Your task to perform on an android device: Open eBay Image 0: 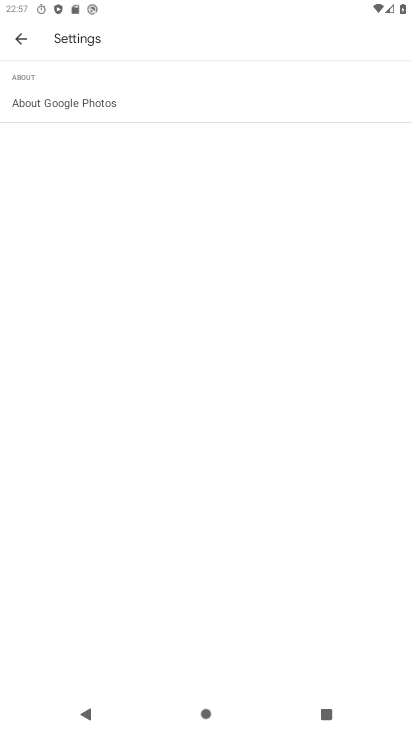
Step 0: press home button
Your task to perform on an android device: Open eBay Image 1: 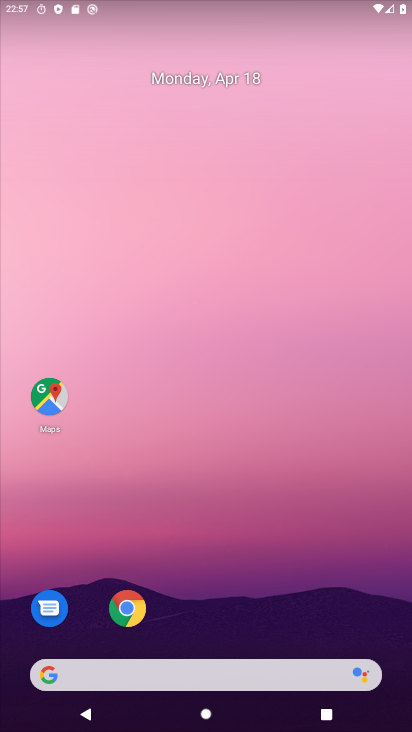
Step 1: drag from (250, 577) to (237, 109)
Your task to perform on an android device: Open eBay Image 2: 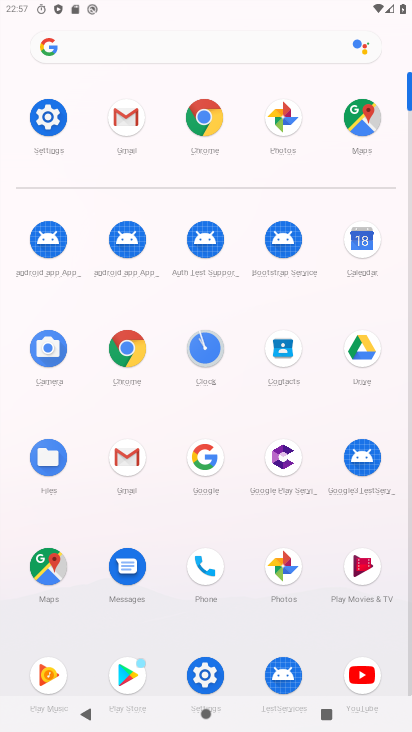
Step 2: click (206, 451)
Your task to perform on an android device: Open eBay Image 3: 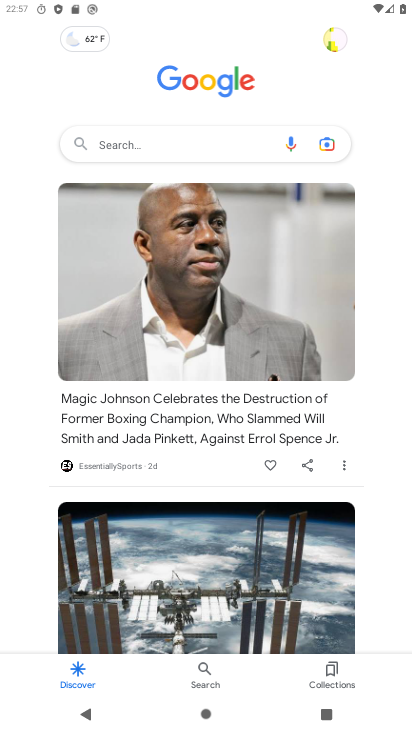
Step 3: click (151, 143)
Your task to perform on an android device: Open eBay Image 4: 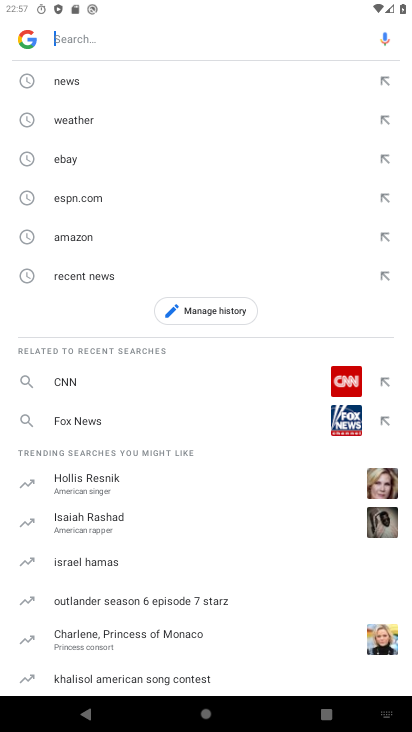
Step 4: click (80, 161)
Your task to perform on an android device: Open eBay Image 5: 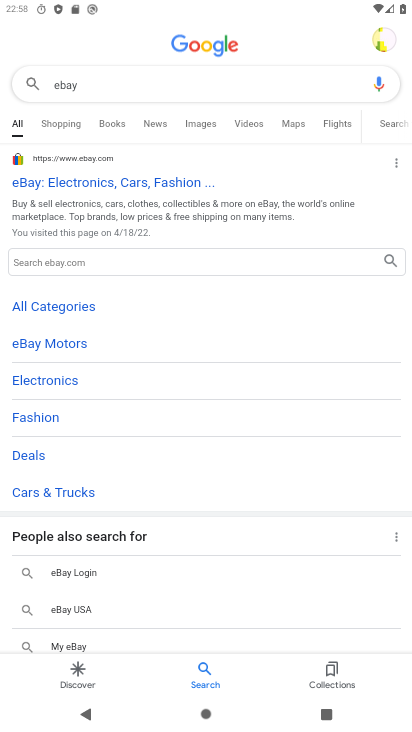
Step 5: click (111, 181)
Your task to perform on an android device: Open eBay Image 6: 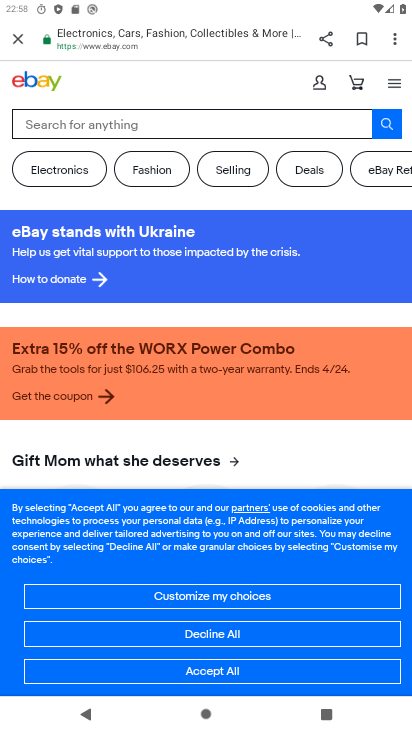
Step 6: task complete